Your task to perform on an android device: set an alarm Image 0: 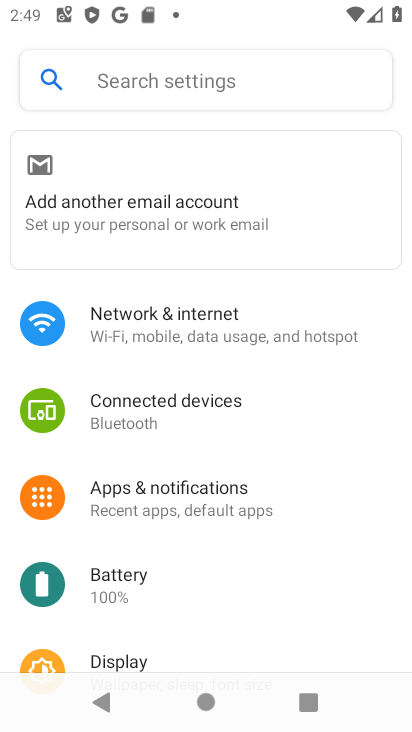
Step 0: press home button
Your task to perform on an android device: set an alarm Image 1: 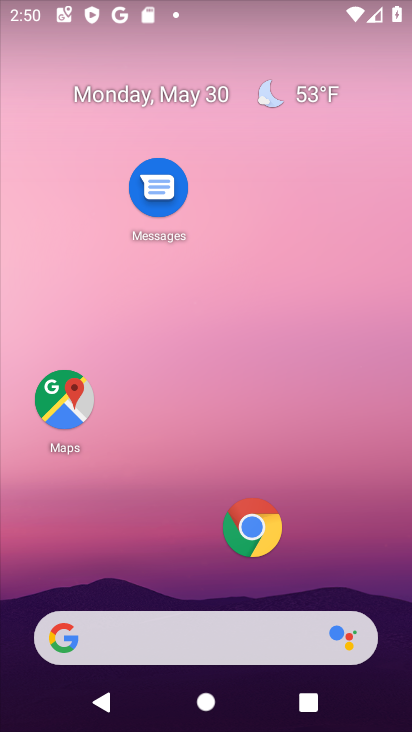
Step 1: drag from (277, 281) to (316, 160)
Your task to perform on an android device: set an alarm Image 2: 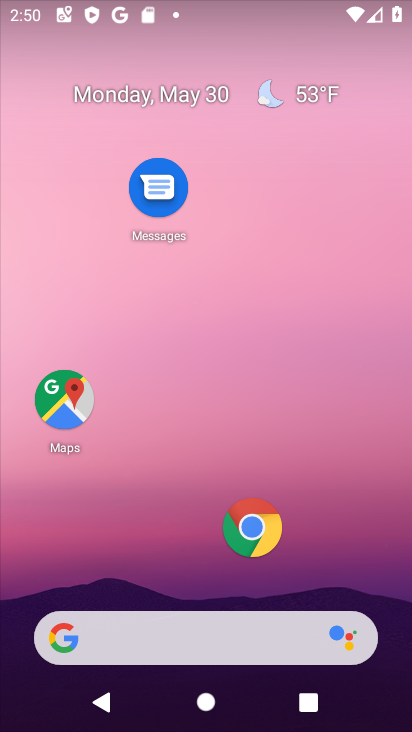
Step 2: drag from (178, 554) to (280, 89)
Your task to perform on an android device: set an alarm Image 3: 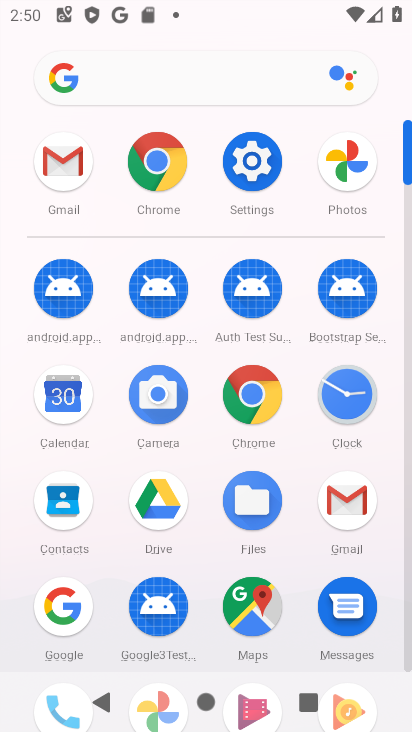
Step 3: click (344, 391)
Your task to perform on an android device: set an alarm Image 4: 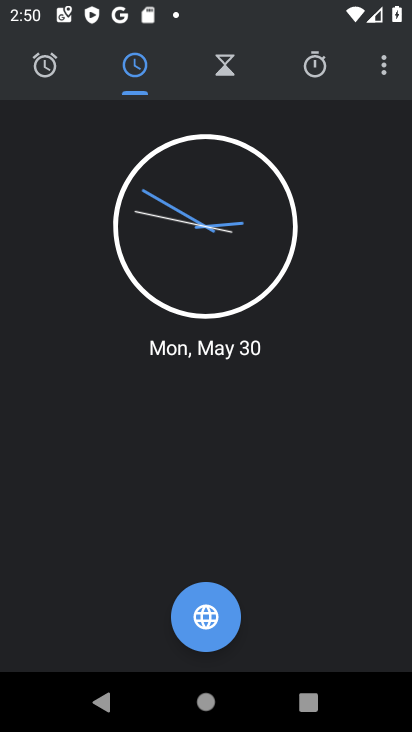
Step 4: click (46, 96)
Your task to perform on an android device: set an alarm Image 5: 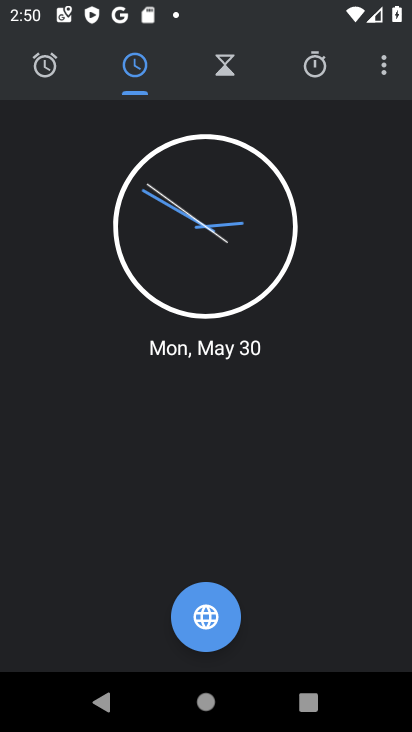
Step 5: click (55, 72)
Your task to perform on an android device: set an alarm Image 6: 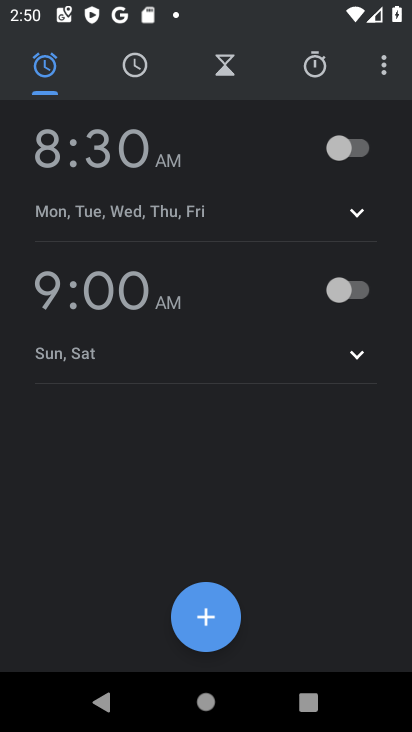
Step 6: click (219, 610)
Your task to perform on an android device: set an alarm Image 7: 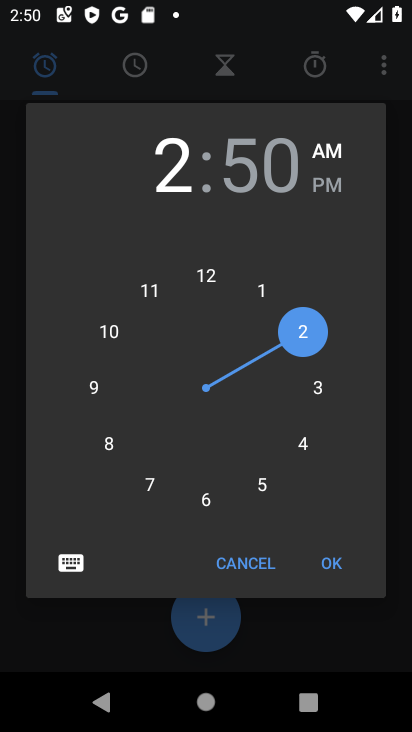
Step 7: click (339, 560)
Your task to perform on an android device: set an alarm Image 8: 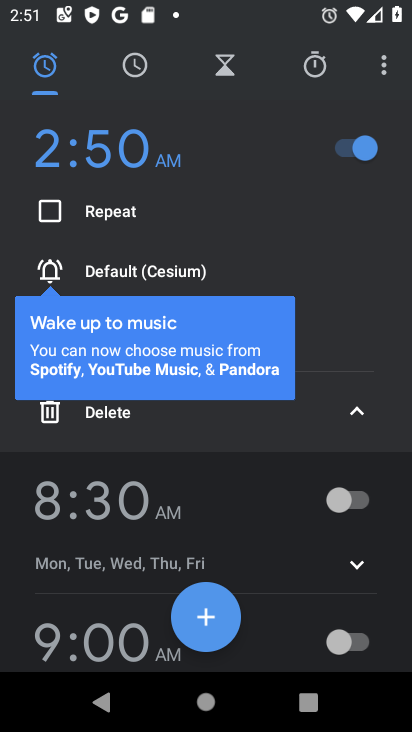
Step 8: task complete